Your task to perform on an android device: Turn off the flashlight Image 0: 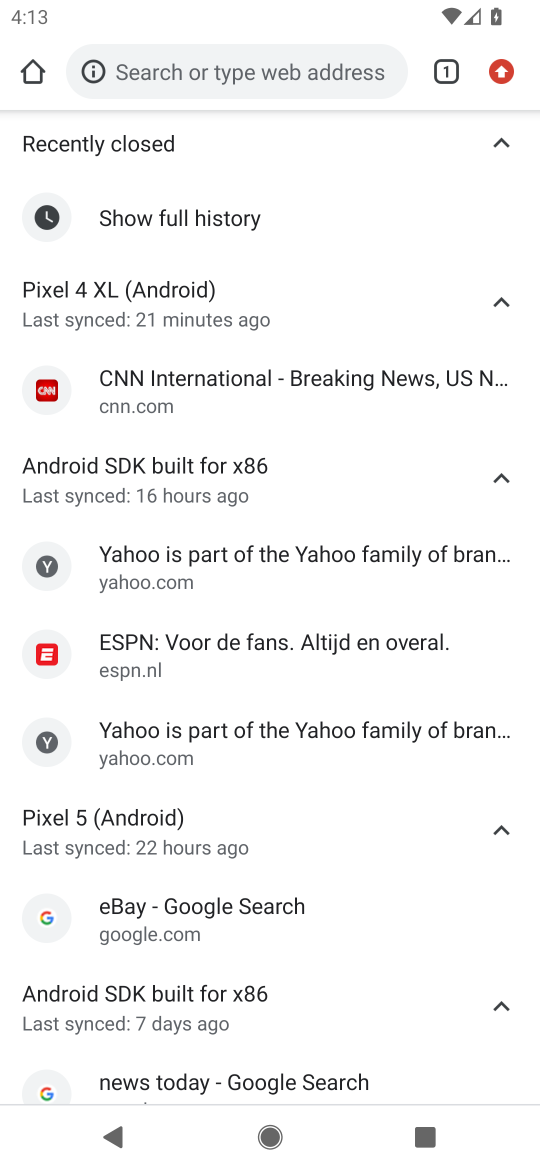
Step 0: press home button
Your task to perform on an android device: Turn off the flashlight Image 1: 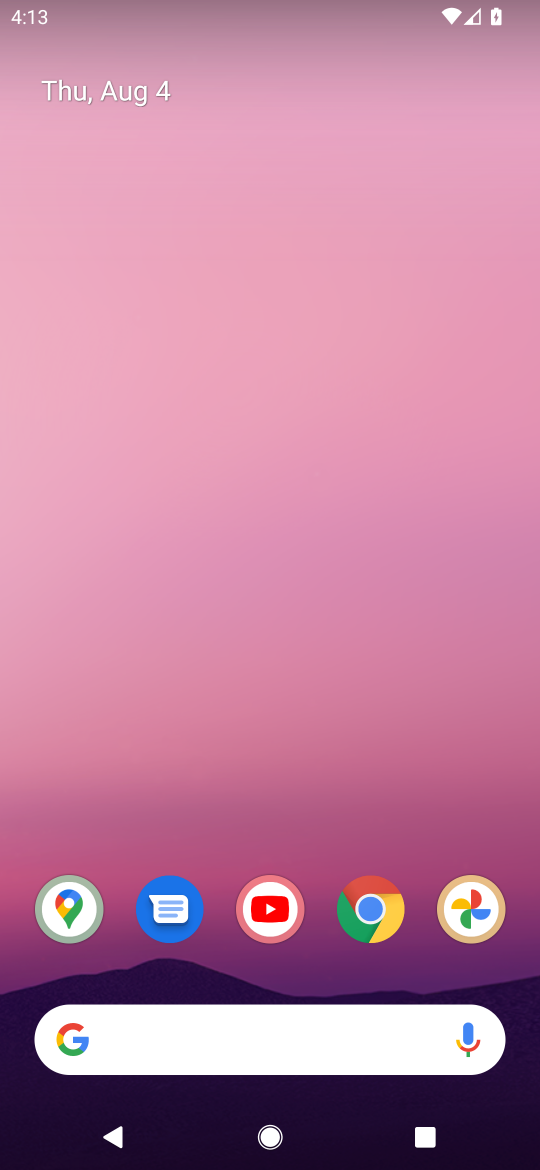
Step 1: task complete